Your task to perform on an android device: Open Google Chrome Image 0: 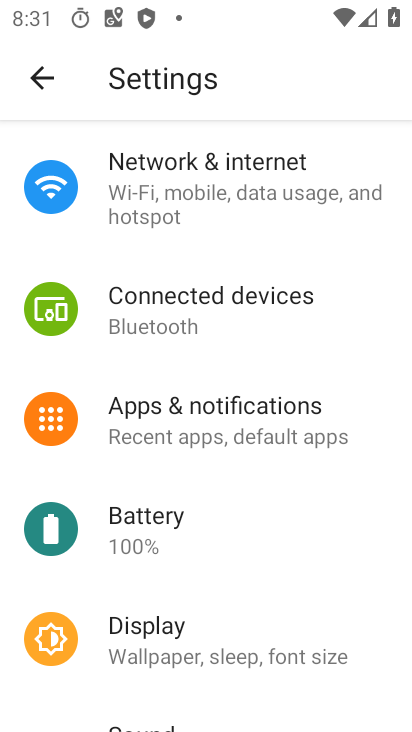
Step 0: press home button
Your task to perform on an android device: Open Google Chrome Image 1: 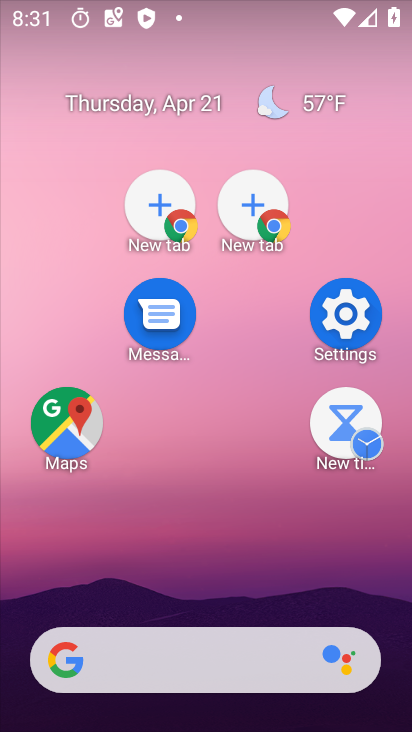
Step 1: drag from (283, 682) to (206, 61)
Your task to perform on an android device: Open Google Chrome Image 2: 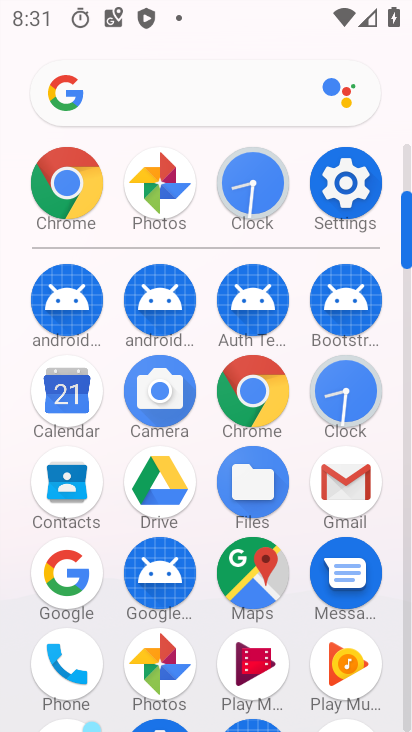
Step 2: drag from (242, 555) to (212, 173)
Your task to perform on an android device: Open Google Chrome Image 3: 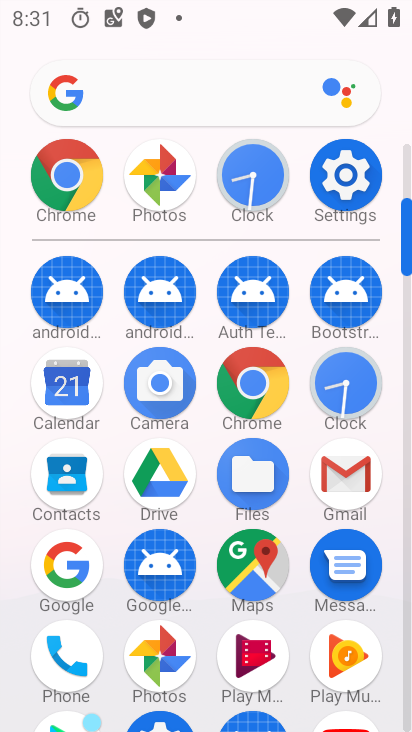
Step 3: click (244, 390)
Your task to perform on an android device: Open Google Chrome Image 4: 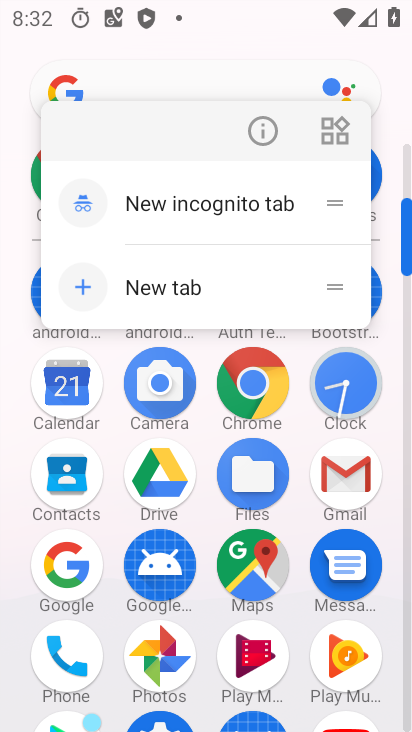
Step 4: click (261, 395)
Your task to perform on an android device: Open Google Chrome Image 5: 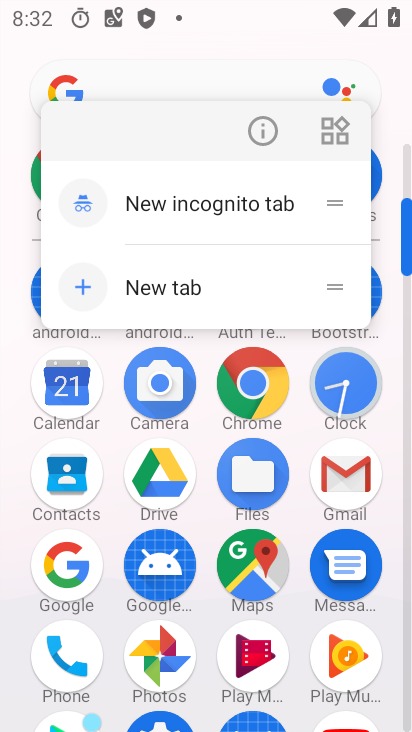
Step 5: click (260, 393)
Your task to perform on an android device: Open Google Chrome Image 6: 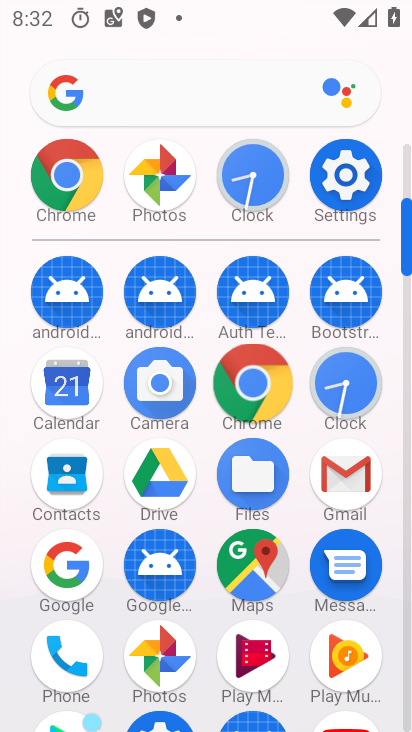
Step 6: click (261, 393)
Your task to perform on an android device: Open Google Chrome Image 7: 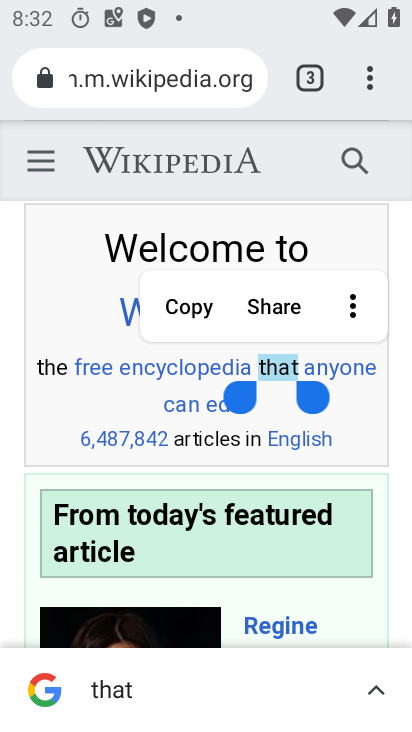
Step 7: drag from (371, 74) to (268, 449)
Your task to perform on an android device: Open Google Chrome Image 8: 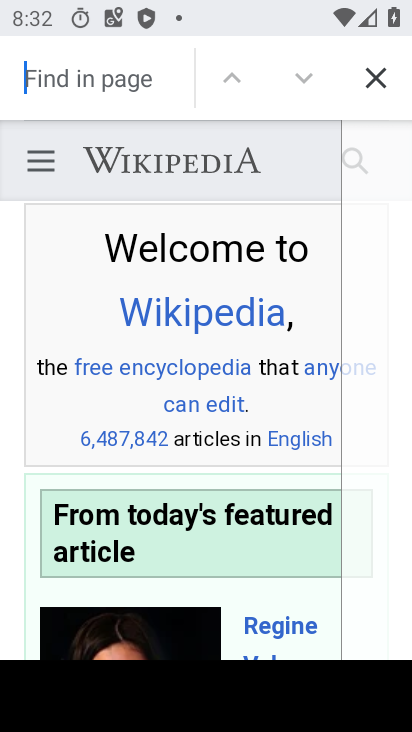
Step 8: click (364, 75)
Your task to perform on an android device: Open Google Chrome Image 9: 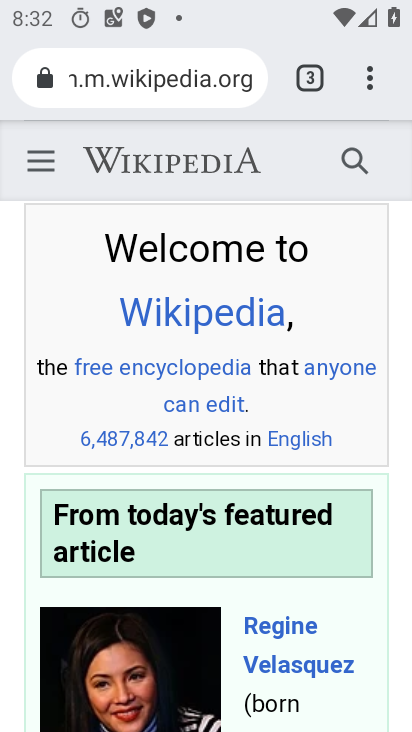
Step 9: drag from (365, 80) to (311, 344)
Your task to perform on an android device: Open Google Chrome Image 10: 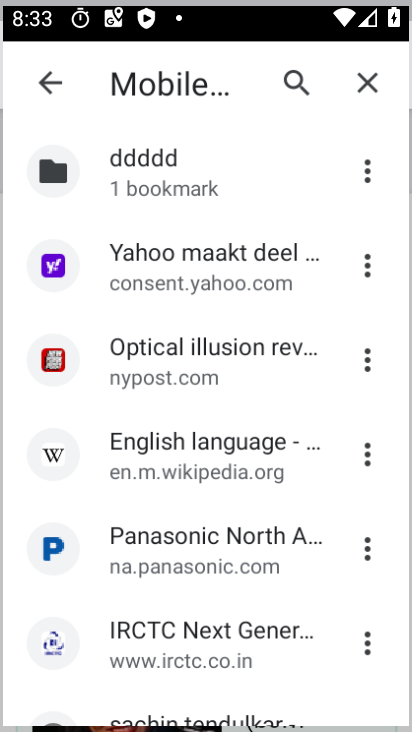
Step 10: click (130, 195)
Your task to perform on an android device: Open Google Chrome Image 11: 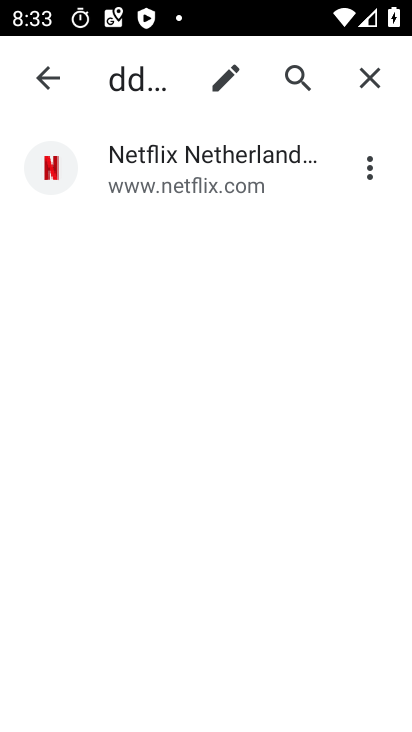
Step 11: click (43, 72)
Your task to perform on an android device: Open Google Chrome Image 12: 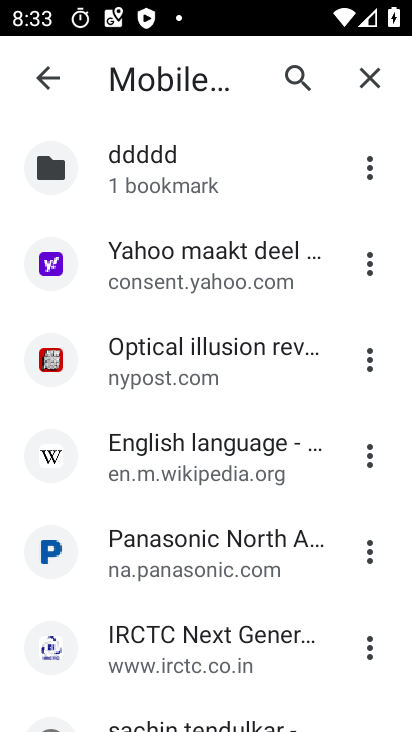
Step 12: click (46, 75)
Your task to perform on an android device: Open Google Chrome Image 13: 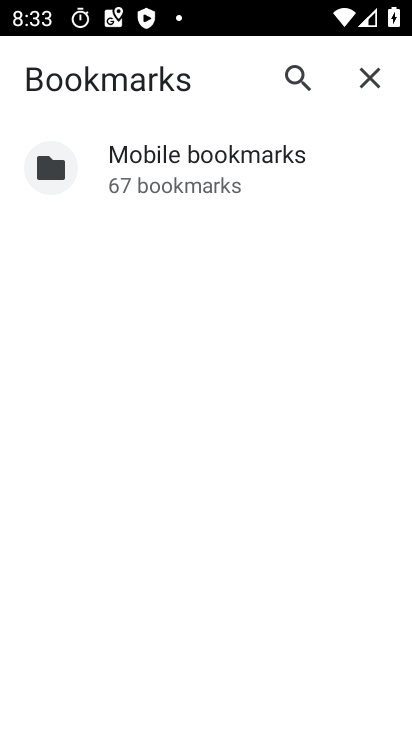
Step 13: click (370, 76)
Your task to perform on an android device: Open Google Chrome Image 14: 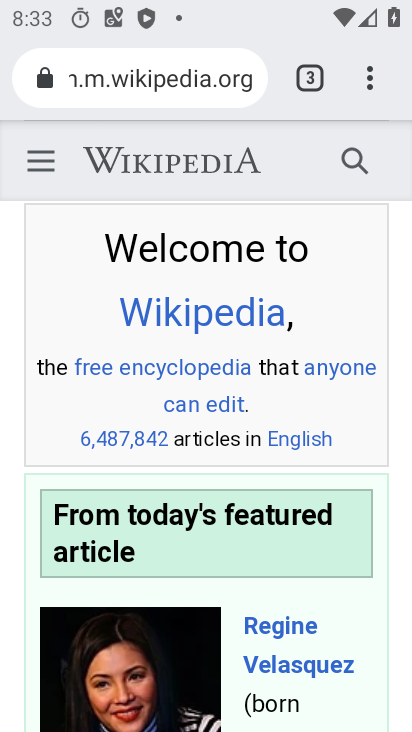
Step 14: click (368, 80)
Your task to perform on an android device: Open Google Chrome Image 15: 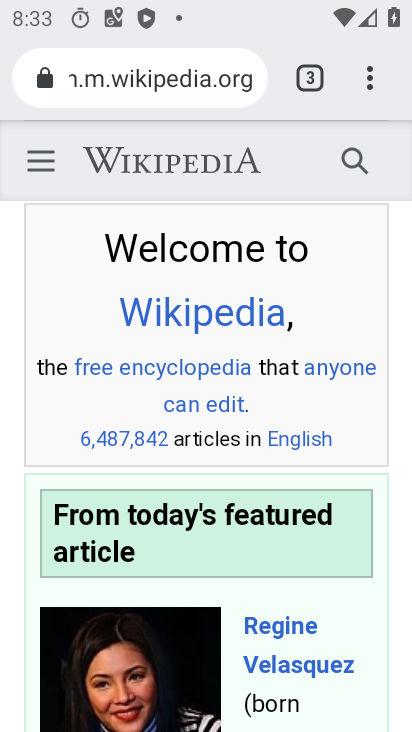
Step 15: click (370, 80)
Your task to perform on an android device: Open Google Chrome Image 16: 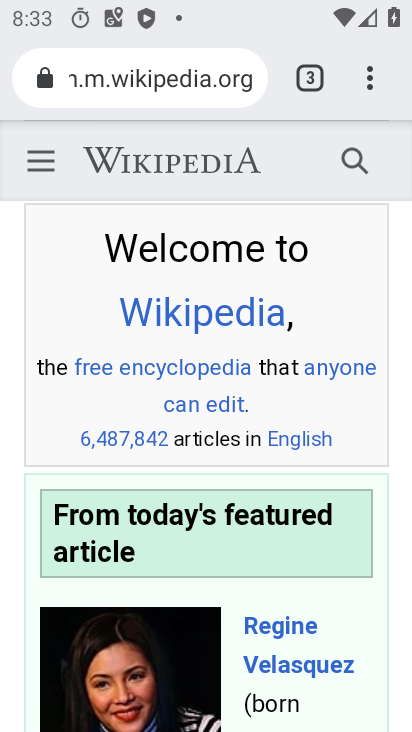
Step 16: click (370, 80)
Your task to perform on an android device: Open Google Chrome Image 17: 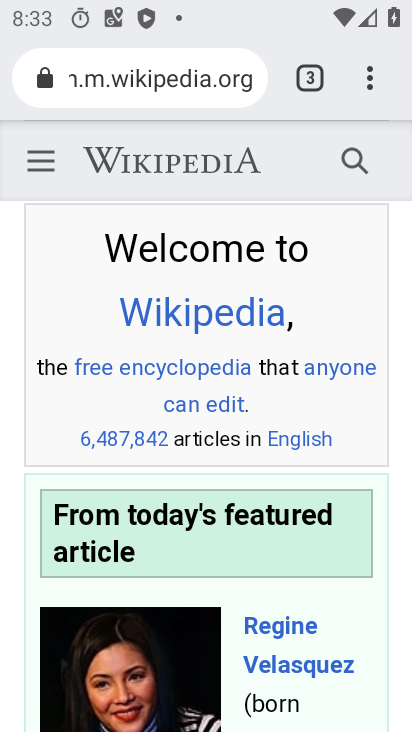
Step 17: click (368, 81)
Your task to perform on an android device: Open Google Chrome Image 18: 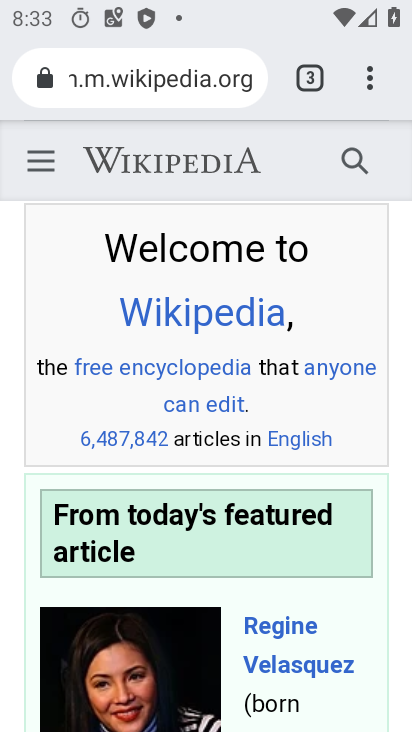
Step 18: drag from (370, 77) to (104, 243)
Your task to perform on an android device: Open Google Chrome Image 19: 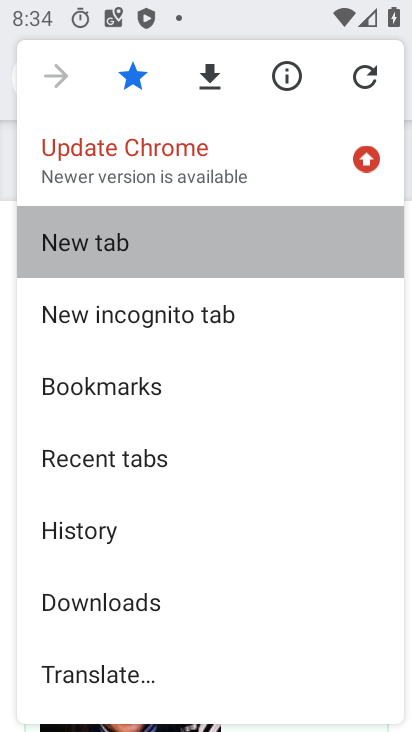
Step 19: click (104, 243)
Your task to perform on an android device: Open Google Chrome Image 20: 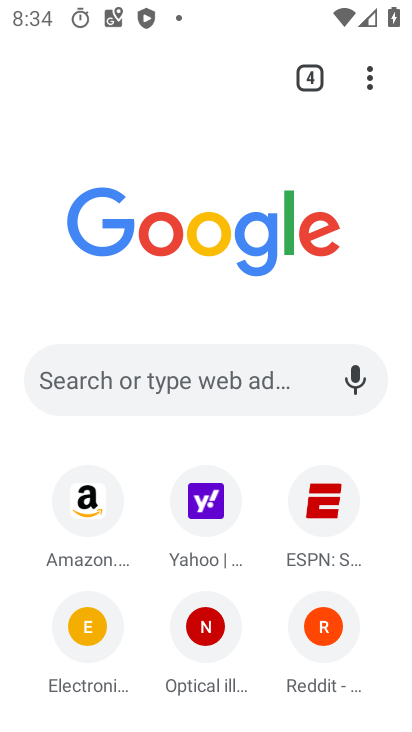
Step 20: task complete